Your task to perform on an android device: Clear the shopping cart on target. Search for corsair k70 on target, select the first entry, add it to the cart, then select checkout. Image 0: 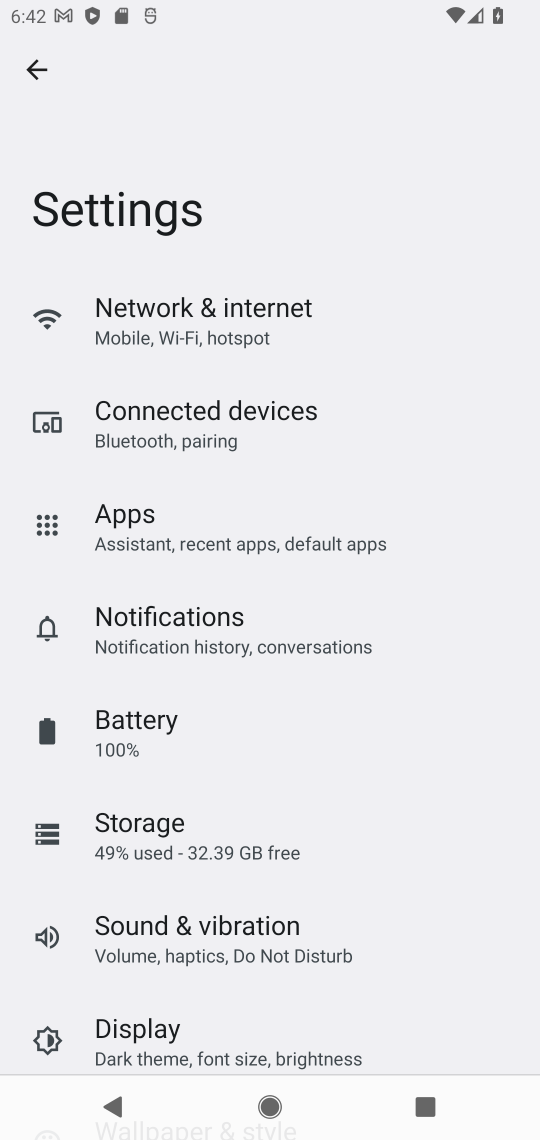
Step 0: press home button
Your task to perform on an android device: Clear the shopping cart on target. Search for corsair k70 on target, select the first entry, add it to the cart, then select checkout. Image 1: 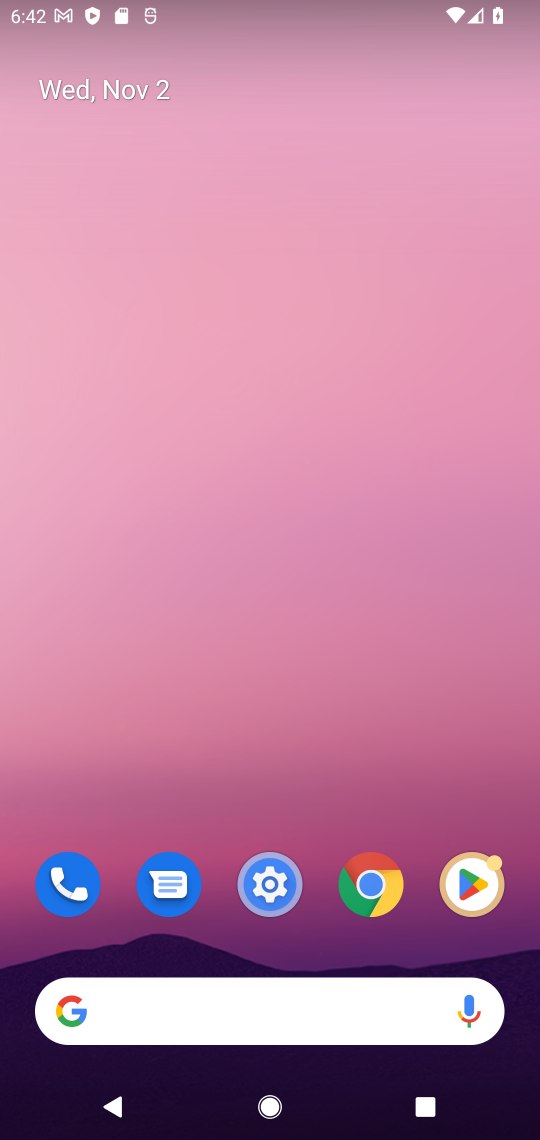
Step 1: click (252, 1018)
Your task to perform on an android device: Clear the shopping cart on target. Search for corsair k70 on target, select the first entry, add it to the cart, then select checkout. Image 2: 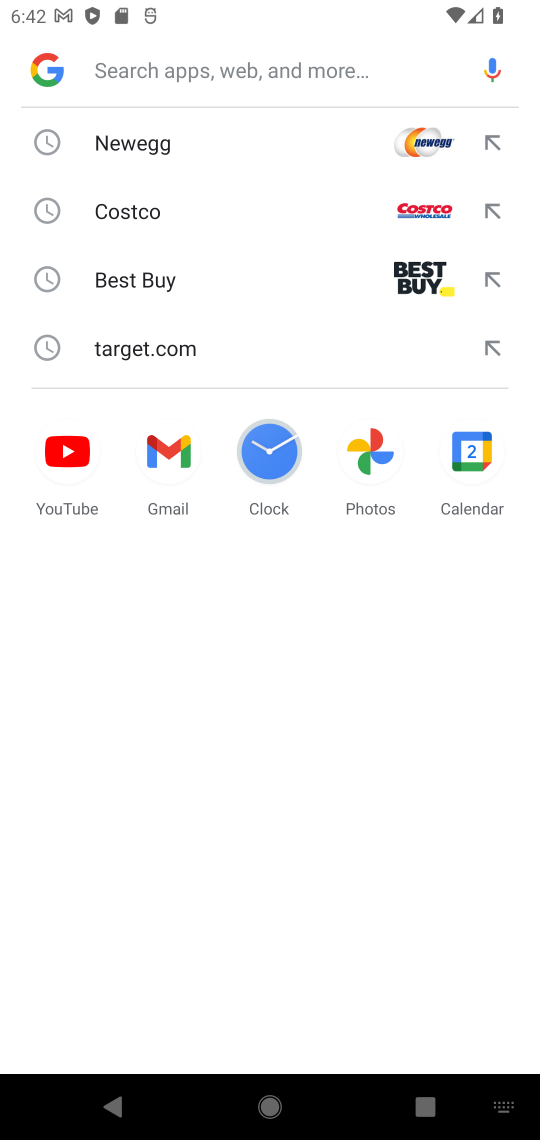
Step 2: click (241, 349)
Your task to perform on an android device: Clear the shopping cart on target. Search for corsair k70 on target, select the first entry, add it to the cart, then select checkout. Image 3: 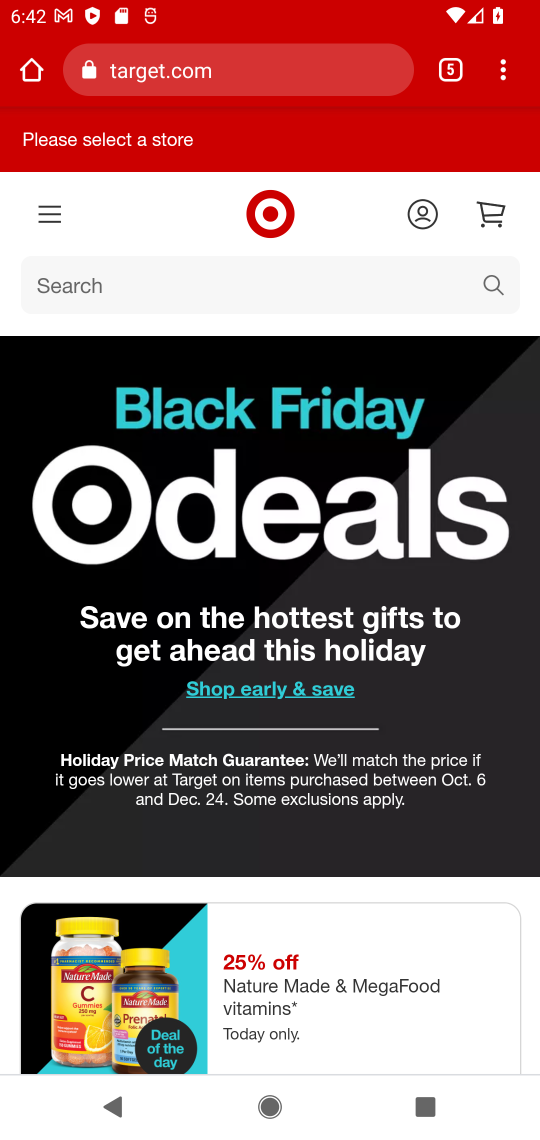
Step 3: click (308, 287)
Your task to perform on an android device: Clear the shopping cart on target. Search for corsair k70 on target, select the first entry, add it to the cart, then select checkout. Image 4: 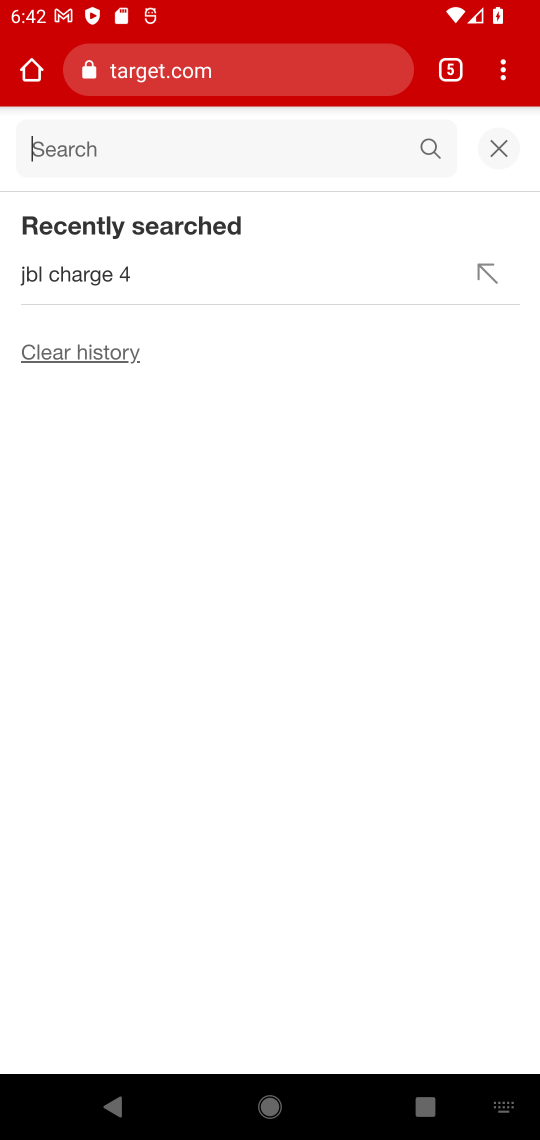
Step 4: type "corsair k70"
Your task to perform on an android device: Clear the shopping cart on target. Search for corsair k70 on target, select the first entry, add it to the cart, then select checkout. Image 5: 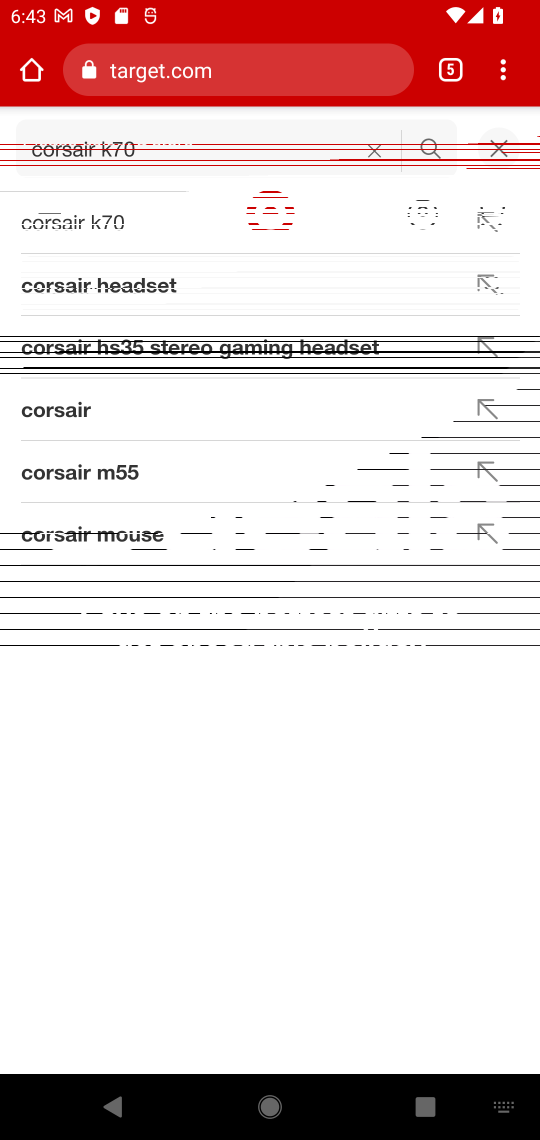
Step 5: click (455, 149)
Your task to perform on an android device: Clear the shopping cart on target. Search for corsair k70 on target, select the first entry, add it to the cart, then select checkout. Image 6: 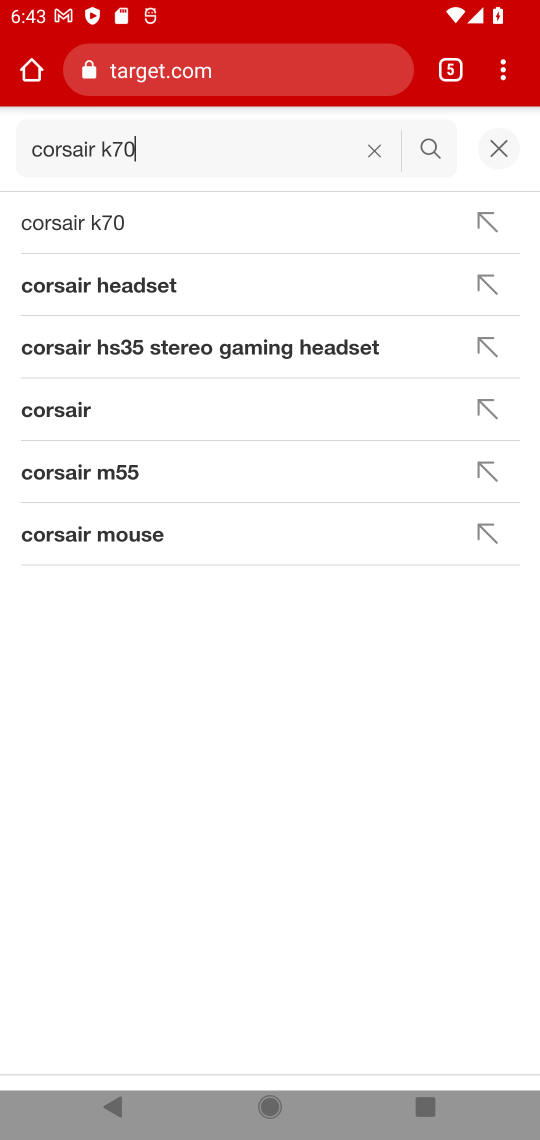
Step 6: click (406, 157)
Your task to perform on an android device: Clear the shopping cart on target. Search for corsair k70 on target, select the first entry, add it to the cart, then select checkout. Image 7: 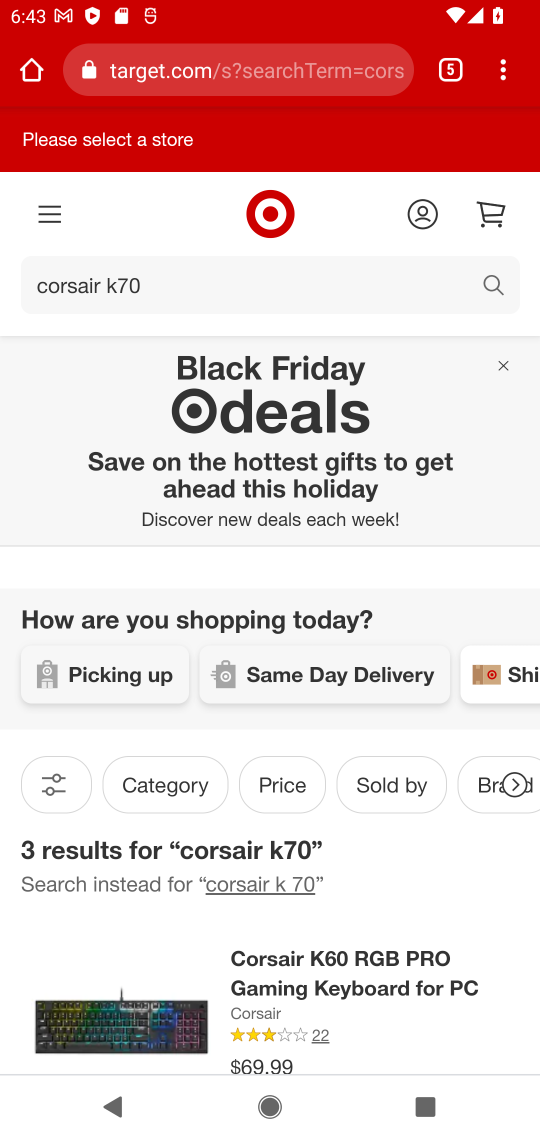
Step 7: drag from (391, 1028) to (269, 493)
Your task to perform on an android device: Clear the shopping cart on target. Search for corsair k70 on target, select the first entry, add it to the cart, then select checkout. Image 8: 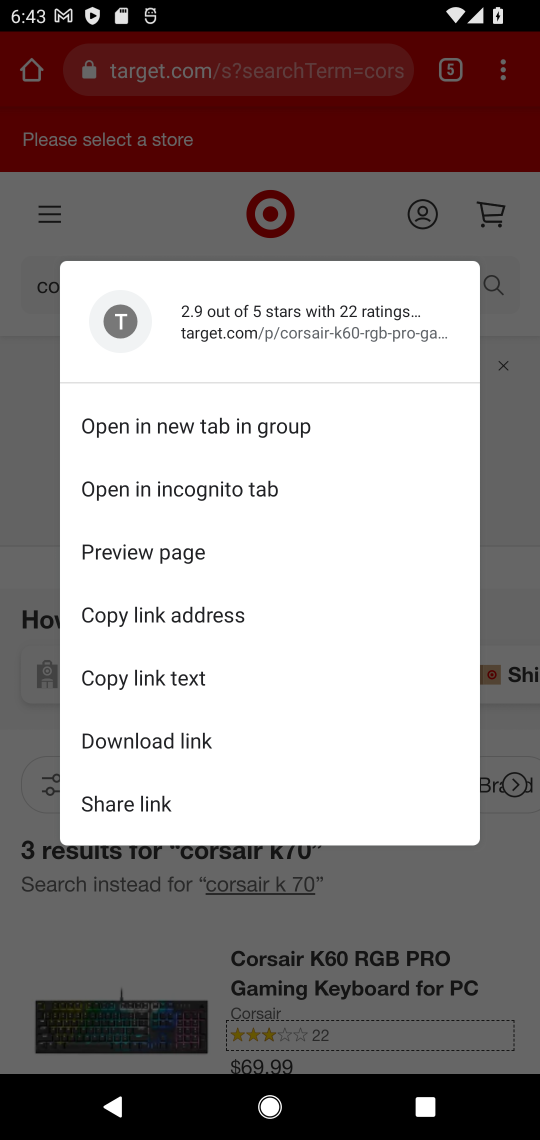
Step 8: click (358, 924)
Your task to perform on an android device: Clear the shopping cart on target. Search for corsair k70 on target, select the first entry, add it to the cart, then select checkout. Image 9: 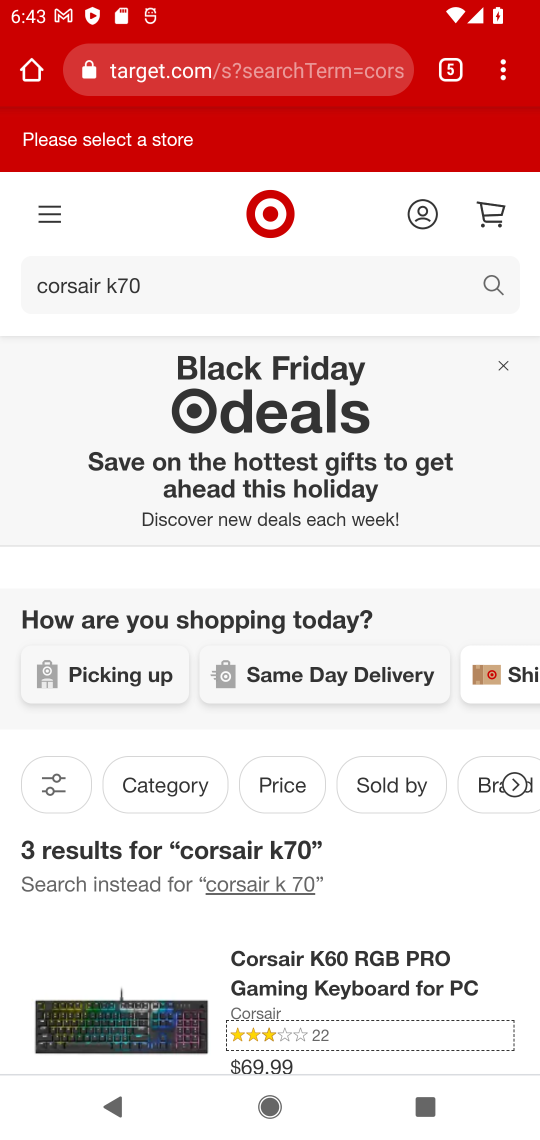
Step 9: drag from (372, 944) to (335, 440)
Your task to perform on an android device: Clear the shopping cart on target. Search for corsair k70 on target, select the first entry, add it to the cart, then select checkout. Image 10: 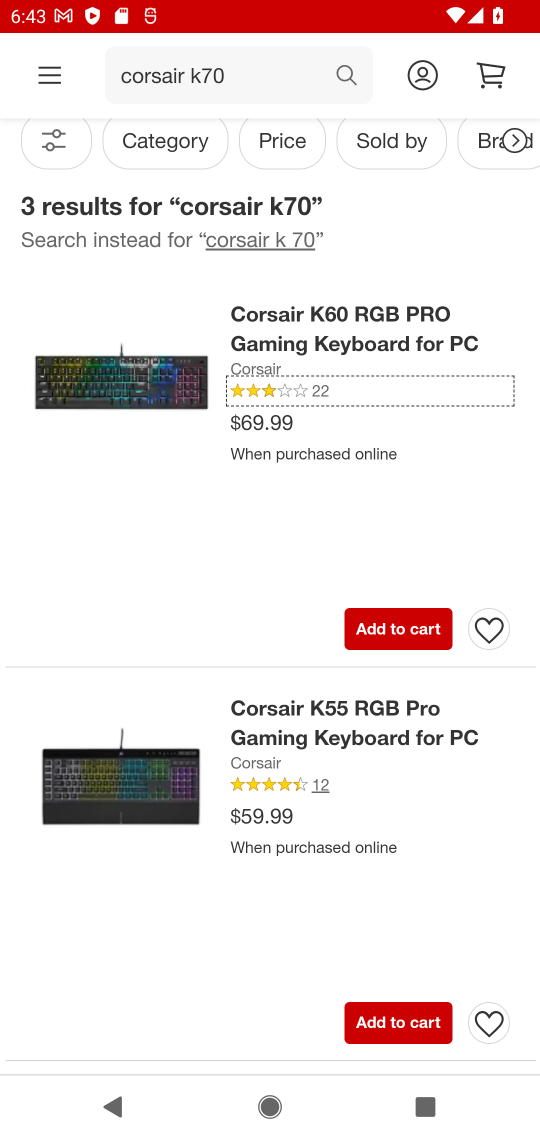
Step 10: click (359, 757)
Your task to perform on an android device: Clear the shopping cart on target. Search for corsair k70 on target, select the first entry, add it to the cart, then select checkout. Image 11: 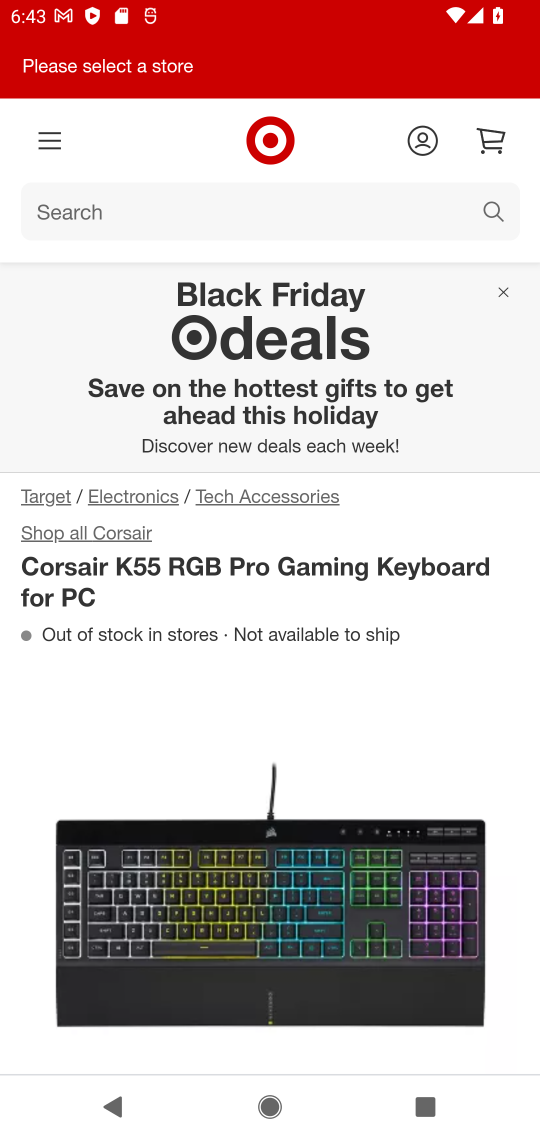
Step 11: task complete